Your task to perform on an android device: Open display settings Image 0: 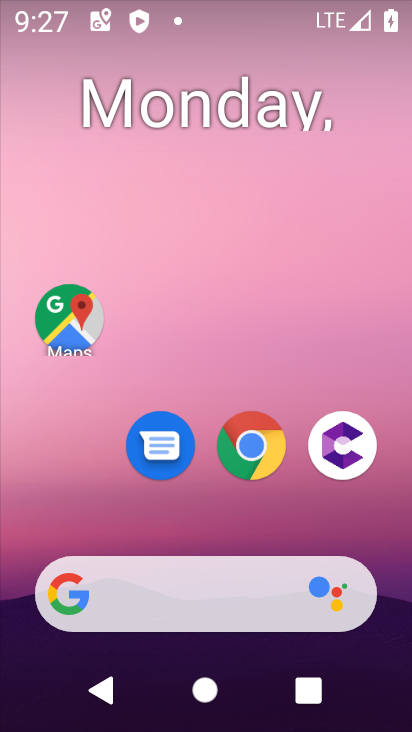
Step 0: drag from (345, 361) to (372, 0)
Your task to perform on an android device: Open display settings Image 1: 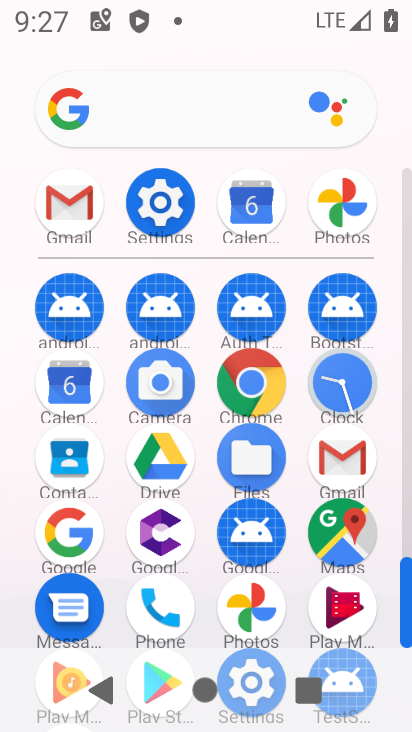
Step 1: click (157, 209)
Your task to perform on an android device: Open display settings Image 2: 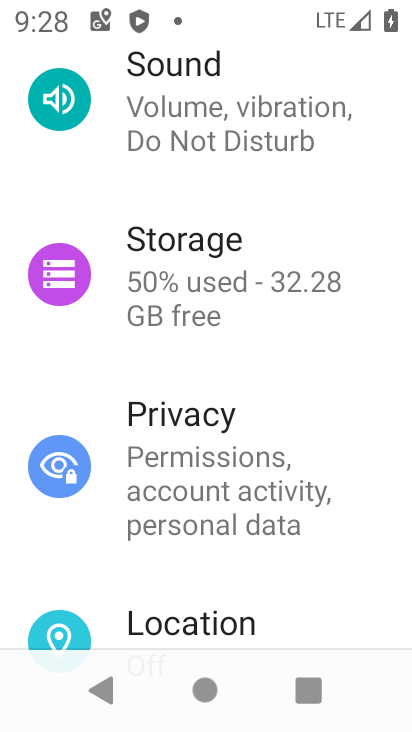
Step 2: drag from (78, 558) to (91, 205)
Your task to perform on an android device: Open display settings Image 3: 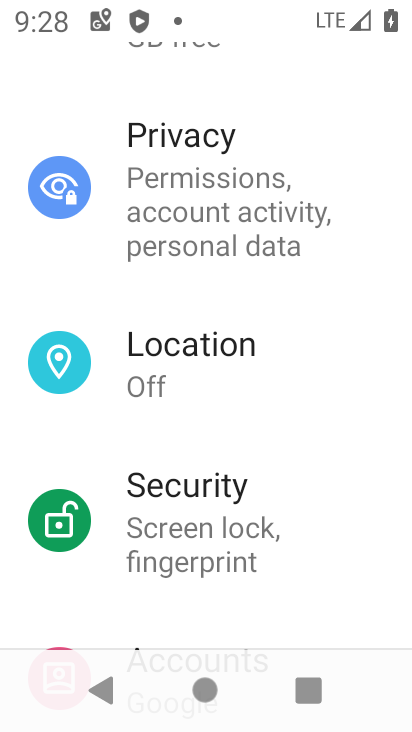
Step 3: drag from (58, 580) to (178, 270)
Your task to perform on an android device: Open display settings Image 4: 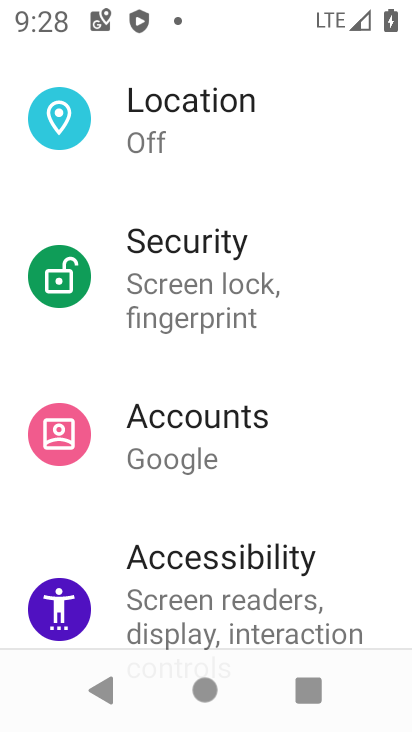
Step 4: drag from (82, 542) to (181, 415)
Your task to perform on an android device: Open display settings Image 5: 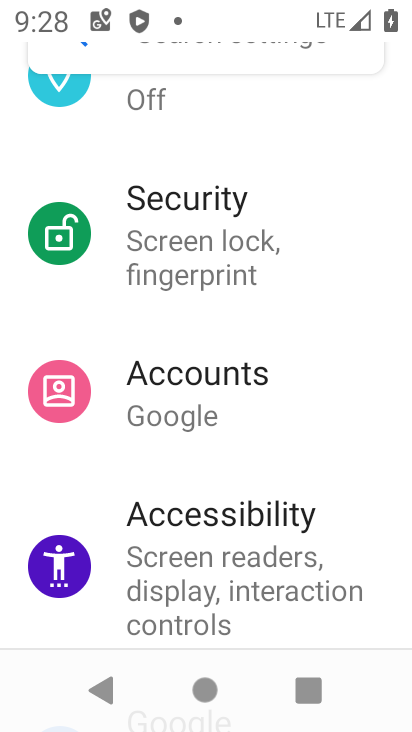
Step 5: drag from (60, 156) to (124, 276)
Your task to perform on an android device: Open display settings Image 6: 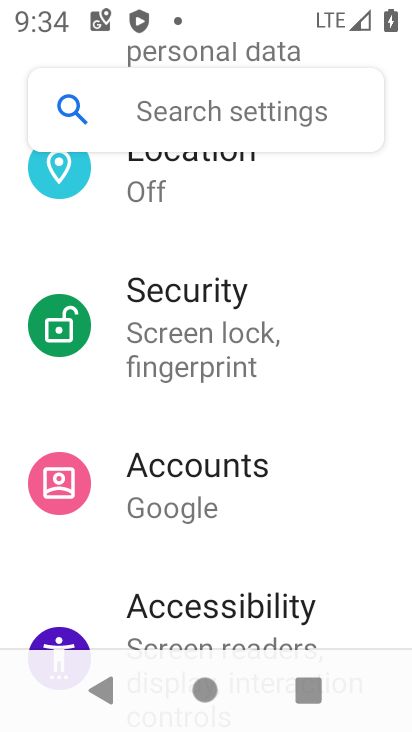
Step 6: drag from (94, 566) to (252, 1)
Your task to perform on an android device: Open display settings Image 7: 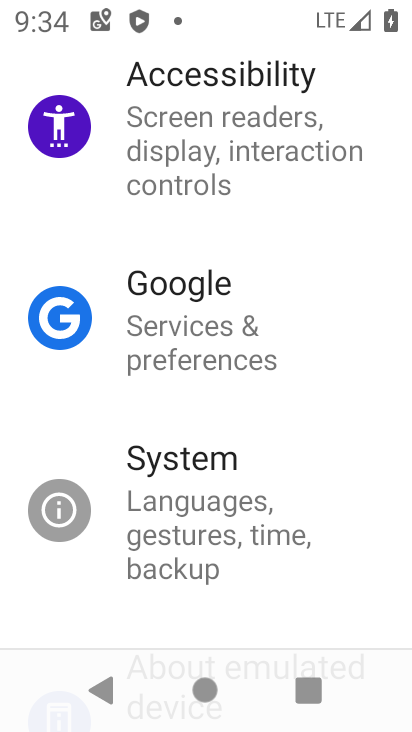
Step 7: drag from (70, 613) to (2, 729)
Your task to perform on an android device: Open display settings Image 8: 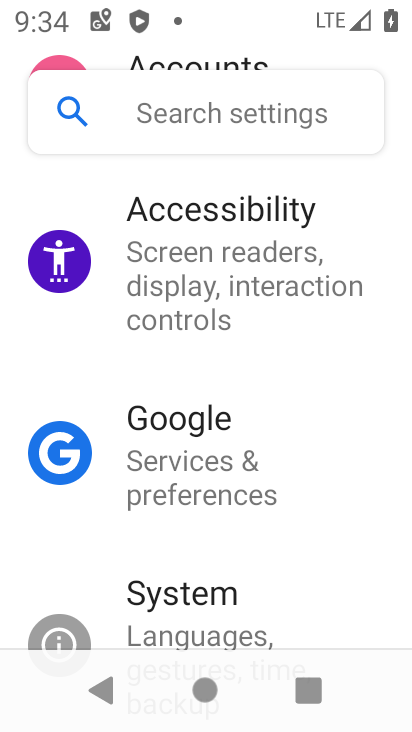
Step 8: drag from (60, 351) to (49, 725)
Your task to perform on an android device: Open display settings Image 9: 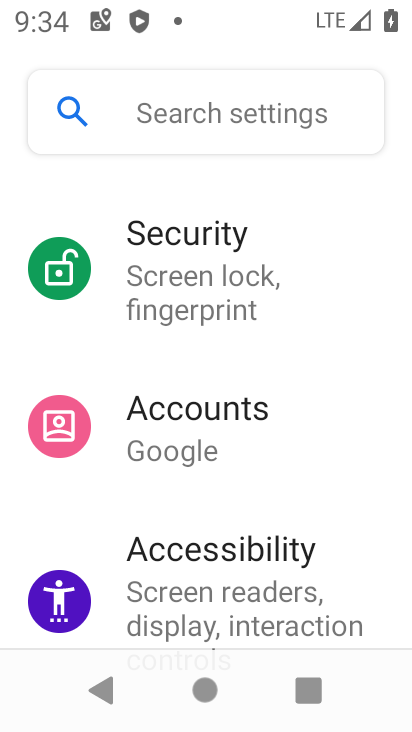
Step 9: drag from (50, 204) to (2, 611)
Your task to perform on an android device: Open display settings Image 10: 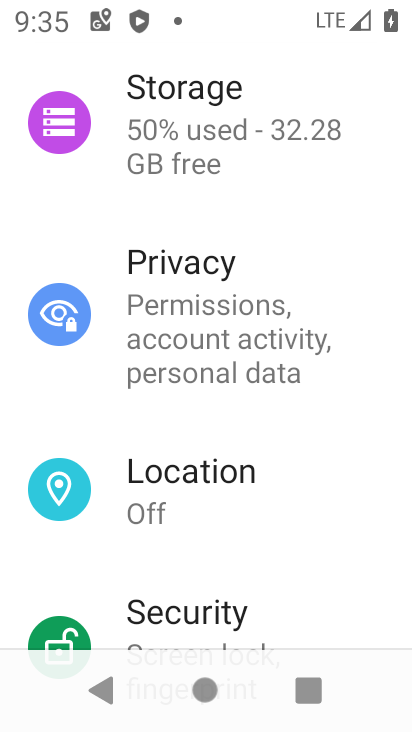
Step 10: drag from (58, 227) to (0, 520)
Your task to perform on an android device: Open display settings Image 11: 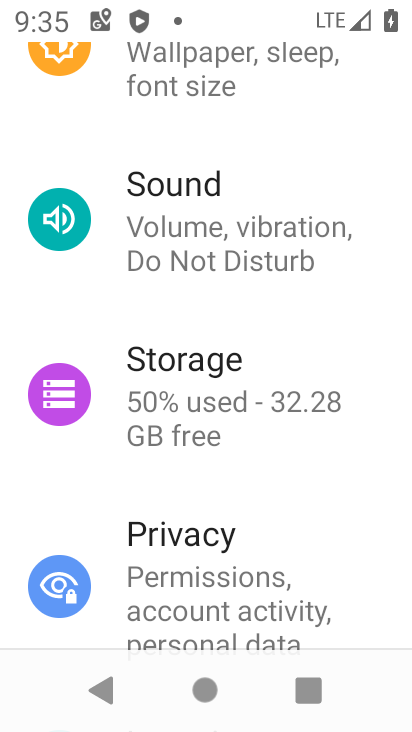
Step 11: drag from (75, 254) to (69, 522)
Your task to perform on an android device: Open display settings Image 12: 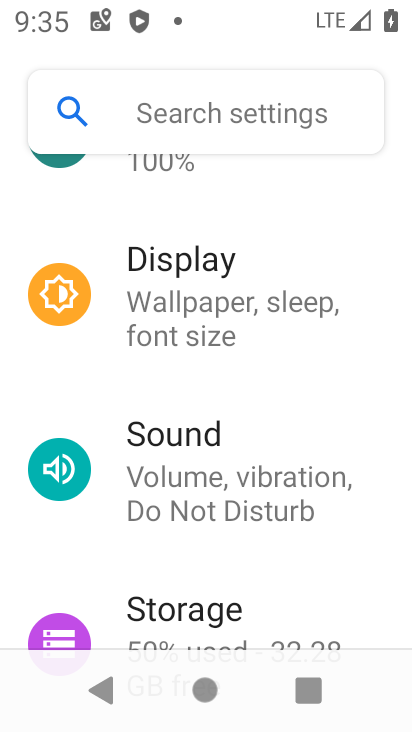
Step 12: click (147, 313)
Your task to perform on an android device: Open display settings Image 13: 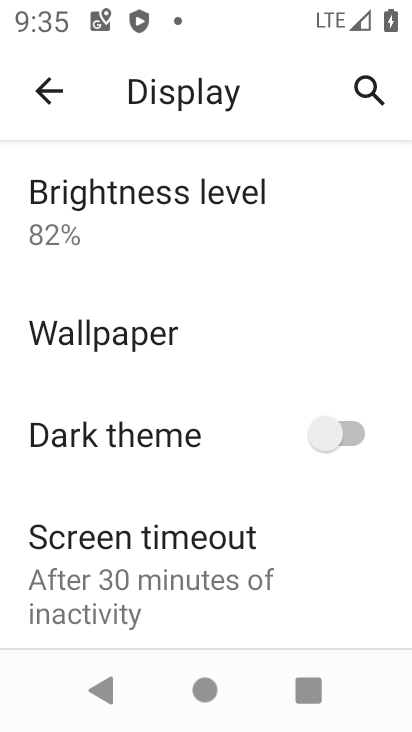
Step 13: task complete